Your task to perform on an android device: turn off wifi Image 0: 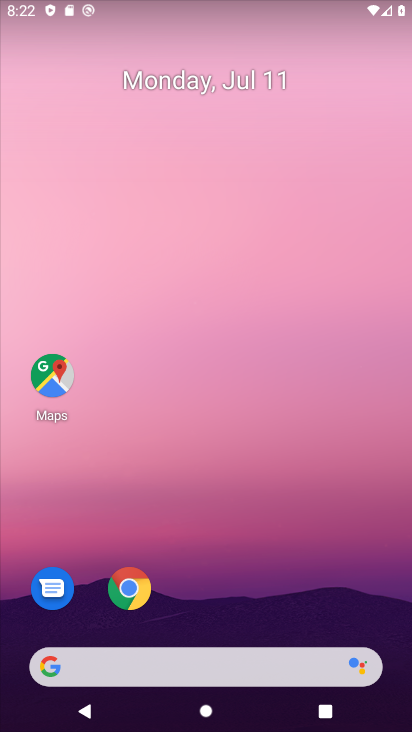
Step 0: drag from (313, 567) to (280, 268)
Your task to perform on an android device: turn off wifi Image 1: 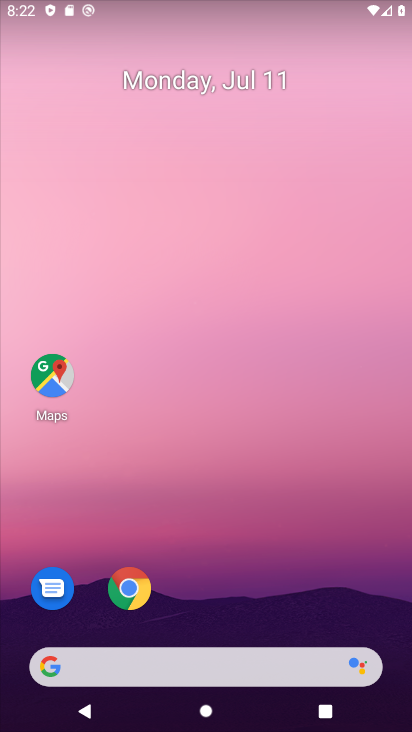
Step 1: drag from (371, 611) to (266, 111)
Your task to perform on an android device: turn off wifi Image 2: 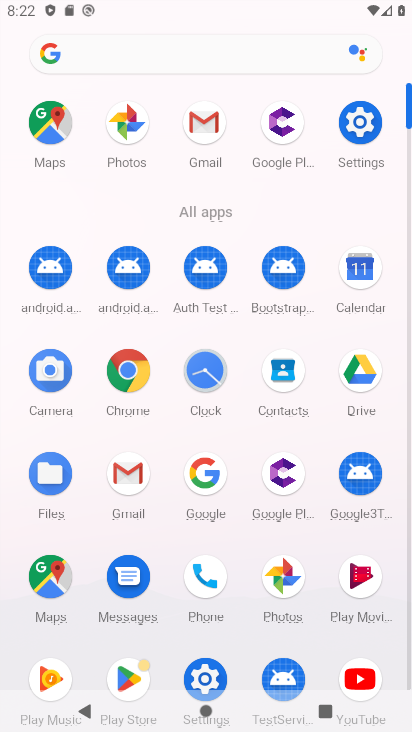
Step 2: click (358, 118)
Your task to perform on an android device: turn off wifi Image 3: 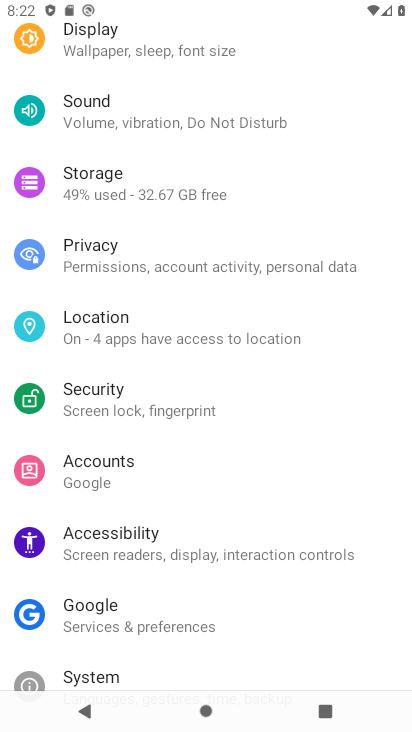
Step 3: click (396, 580)
Your task to perform on an android device: turn off wifi Image 4: 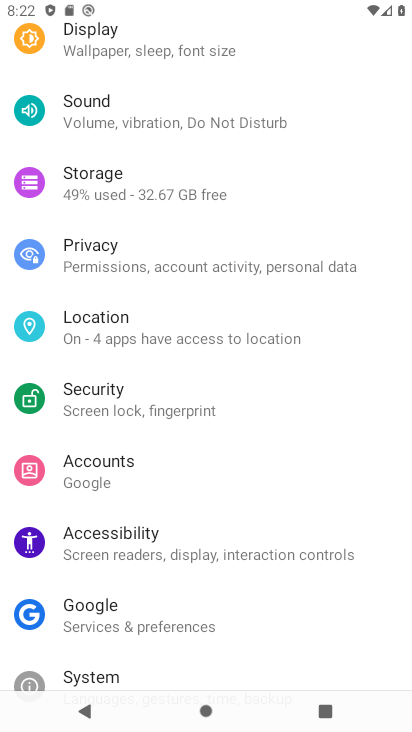
Step 4: drag from (198, 84) to (304, 710)
Your task to perform on an android device: turn off wifi Image 5: 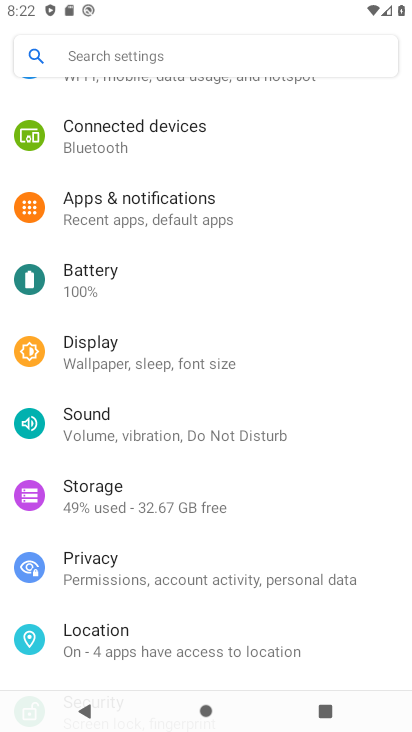
Step 5: drag from (411, 474) to (411, 191)
Your task to perform on an android device: turn off wifi Image 6: 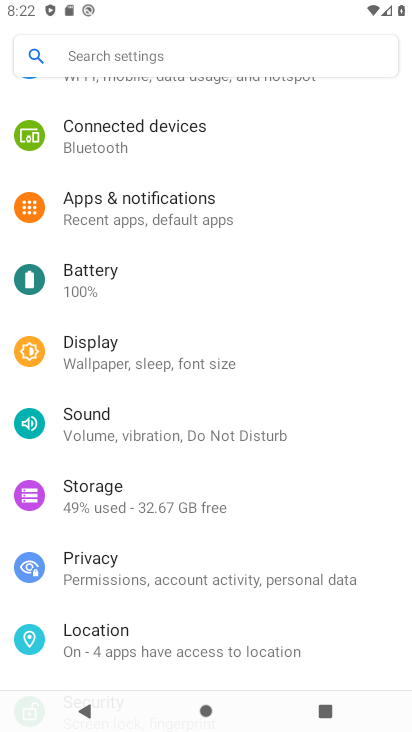
Step 6: drag from (351, 98) to (317, 456)
Your task to perform on an android device: turn off wifi Image 7: 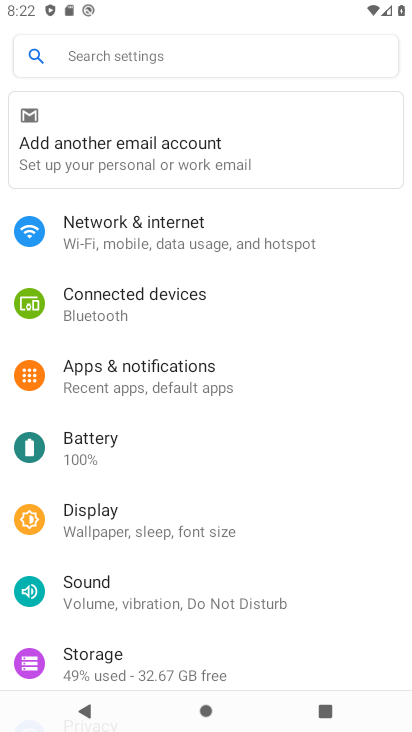
Step 7: click (268, 236)
Your task to perform on an android device: turn off wifi Image 8: 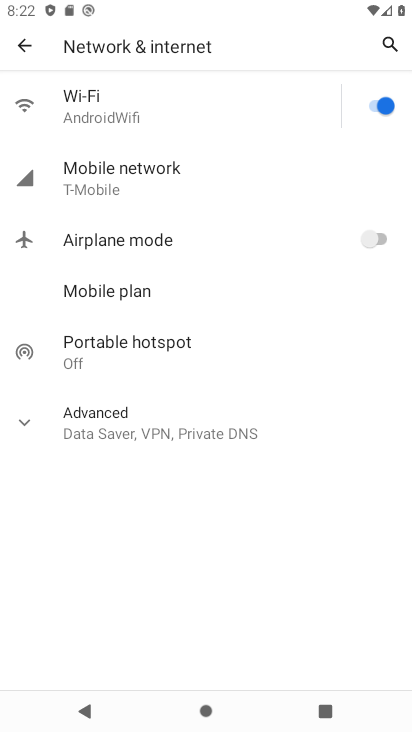
Step 8: click (374, 107)
Your task to perform on an android device: turn off wifi Image 9: 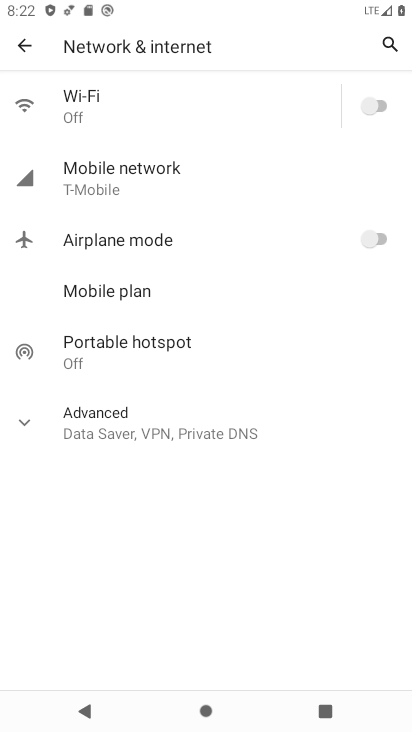
Step 9: task complete